Your task to perform on an android device: toggle data saver in the chrome app Image 0: 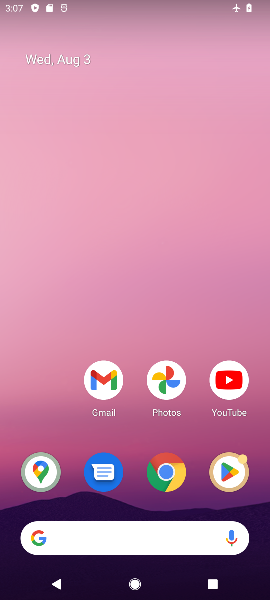
Step 0: drag from (133, 507) to (19, 63)
Your task to perform on an android device: toggle data saver in the chrome app Image 1: 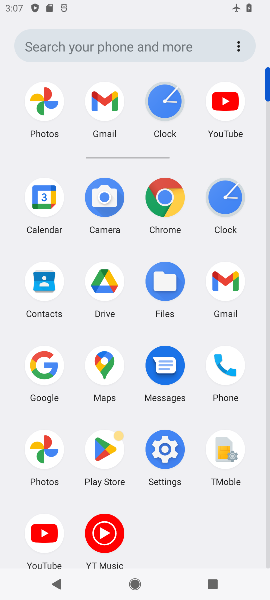
Step 1: click (157, 200)
Your task to perform on an android device: toggle data saver in the chrome app Image 2: 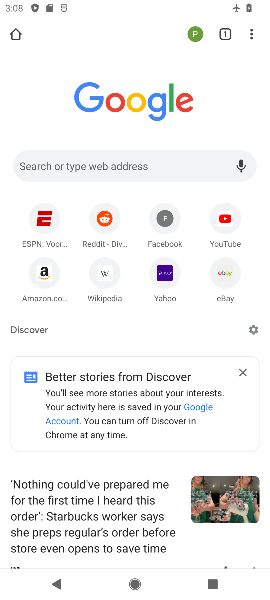
Step 2: click (246, 31)
Your task to perform on an android device: toggle data saver in the chrome app Image 3: 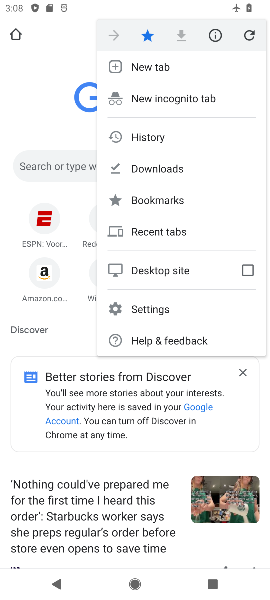
Step 3: click (153, 314)
Your task to perform on an android device: toggle data saver in the chrome app Image 4: 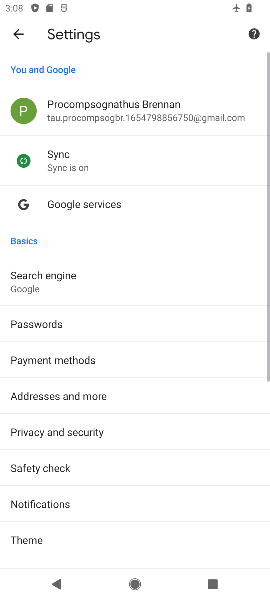
Step 4: drag from (41, 526) to (29, 241)
Your task to perform on an android device: toggle data saver in the chrome app Image 5: 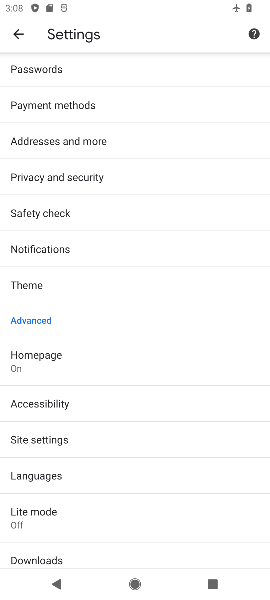
Step 5: click (45, 532)
Your task to perform on an android device: toggle data saver in the chrome app Image 6: 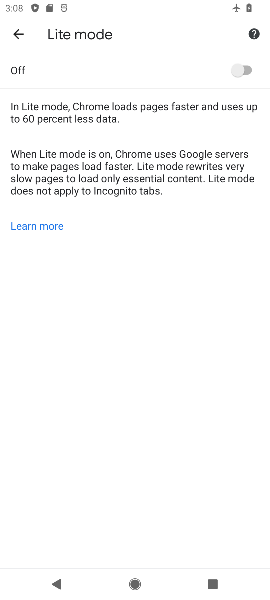
Step 6: click (232, 70)
Your task to perform on an android device: toggle data saver in the chrome app Image 7: 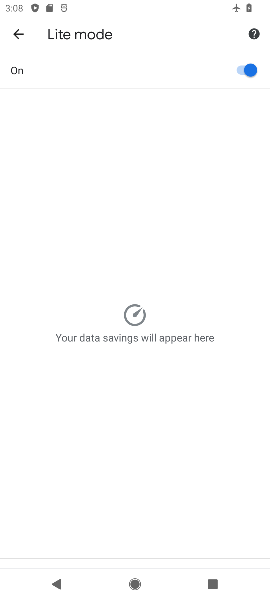
Step 7: task complete